Your task to perform on an android device: add a contact Image 0: 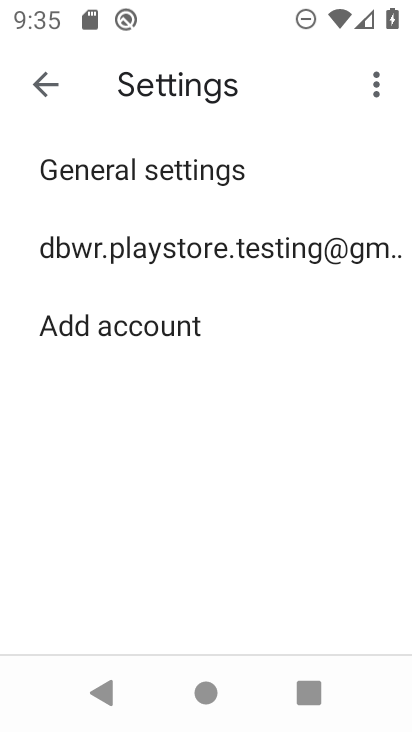
Step 0: press home button
Your task to perform on an android device: add a contact Image 1: 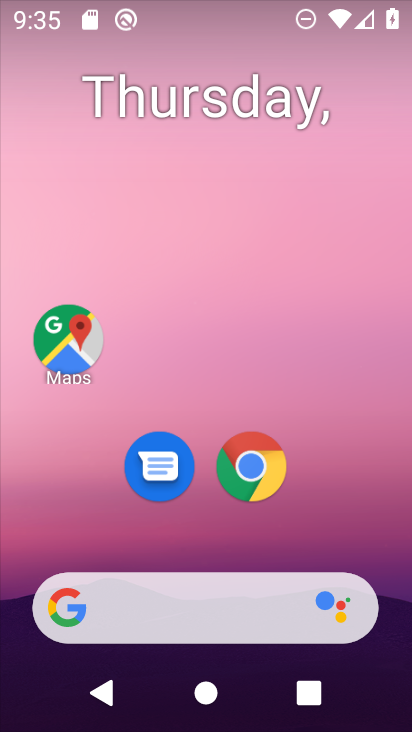
Step 1: drag from (316, 524) to (411, 361)
Your task to perform on an android device: add a contact Image 2: 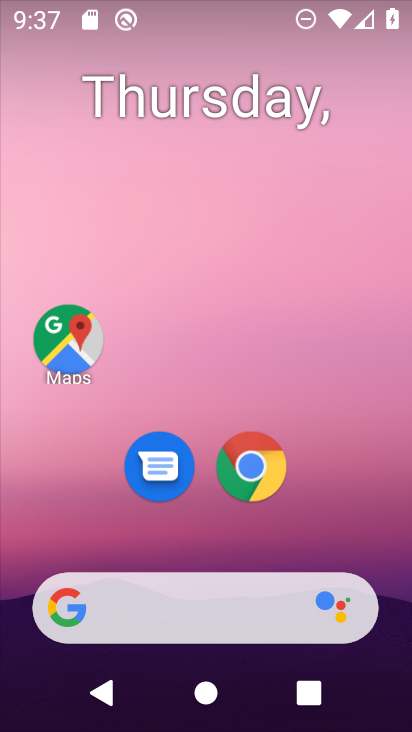
Step 2: drag from (261, 557) to (397, 93)
Your task to perform on an android device: add a contact Image 3: 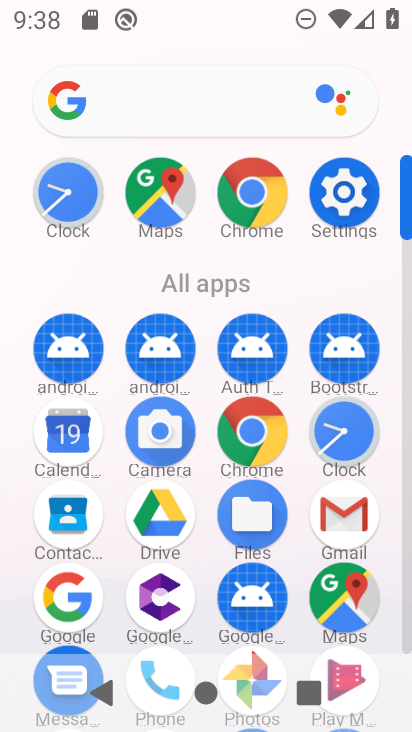
Step 3: click (66, 506)
Your task to perform on an android device: add a contact Image 4: 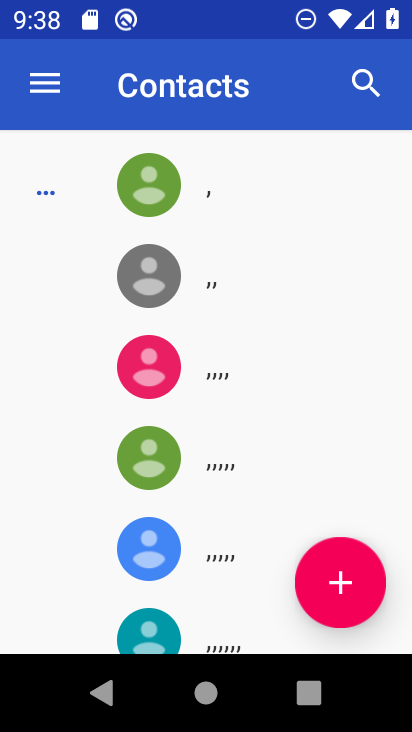
Step 4: click (327, 584)
Your task to perform on an android device: add a contact Image 5: 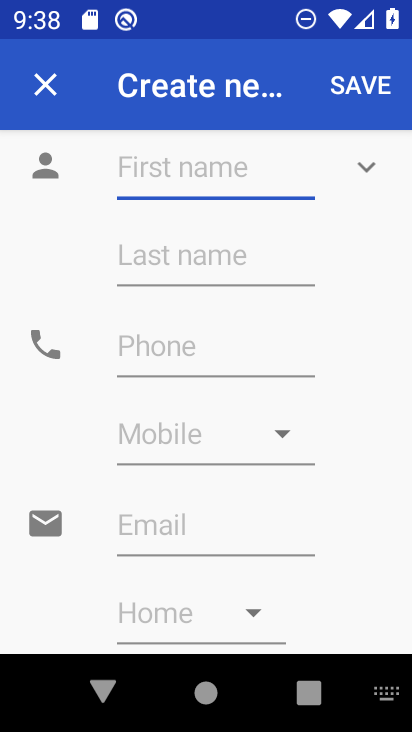
Step 5: type "bbvcf"
Your task to perform on an android device: add a contact Image 6: 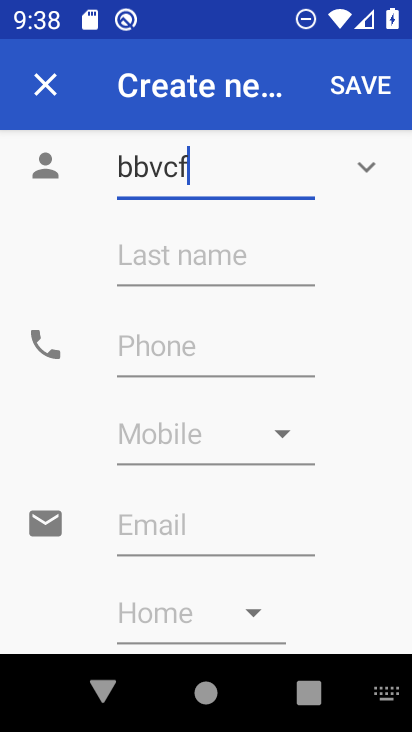
Step 6: click (247, 358)
Your task to perform on an android device: add a contact Image 7: 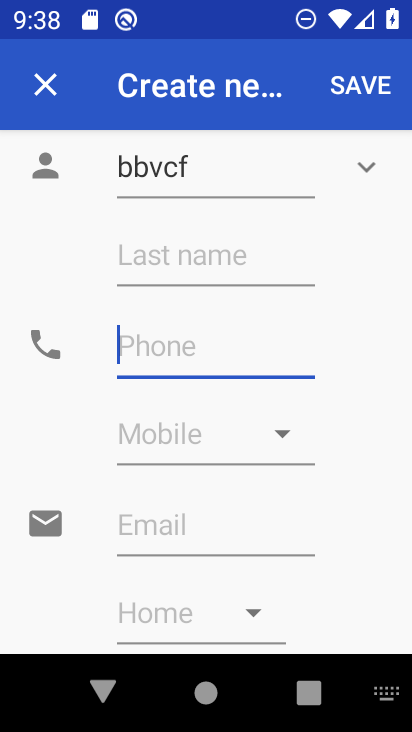
Step 7: type "87899877776"
Your task to perform on an android device: add a contact Image 8: 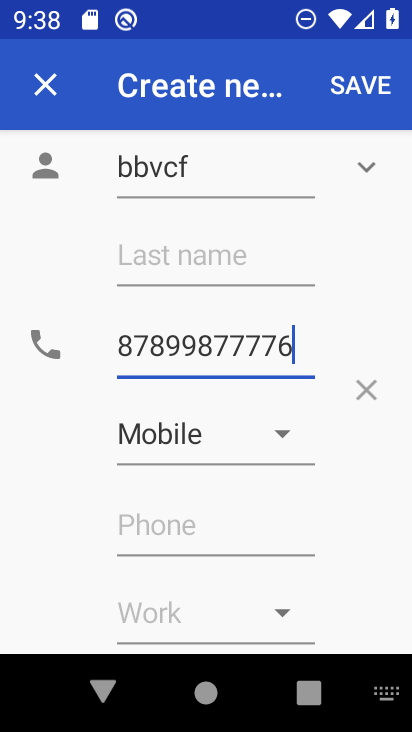
Step 8: click (367, 78)
Your task to perform on an android device: add a contact Image 9: 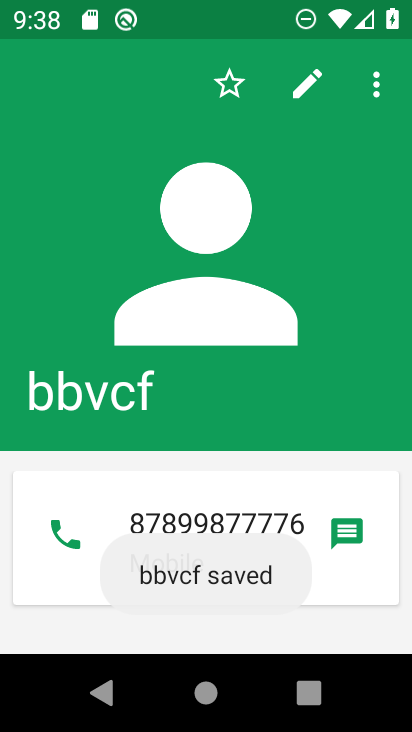
Step 9: task complete